Your task to perform on an android device: open app "DuckDuckGo Privacy Browser" (install if not already installed) and go to login screen Image 0: 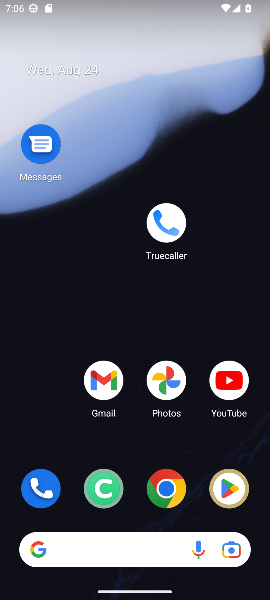
Step 0: click (230, 494)
Your task to perform on an android device: open app "DuckDuckGo Privacy Browser" (install if not already installed) and go to login screen Image 1: 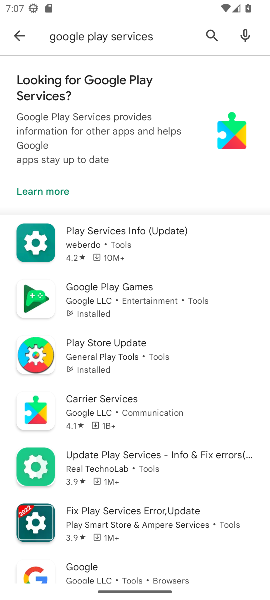
Step 1: click (205, 42)
Your task to perform on an android device: open app "DuckDuckGo Privacy Browser" (install if not already installed) and go to login screen Image 2: 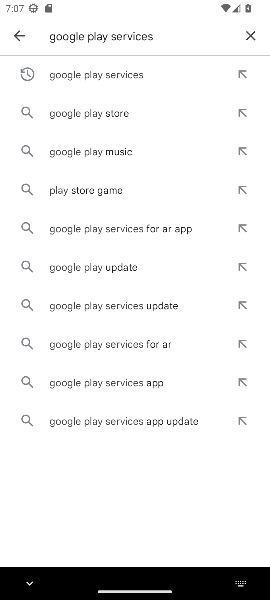
Step 2: click (248, 36)
Your task to perform on an android device: open app "DuckDuckGo Privacy Browser" (install if not already installed) and go to login screen Image 3: 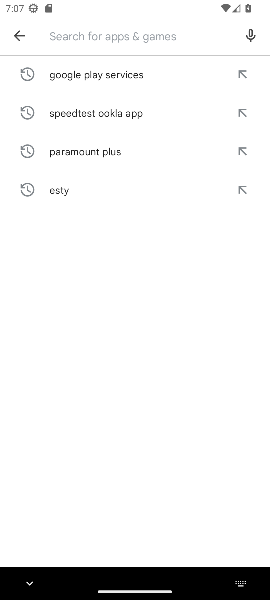
Step 3: type "duck duck go"
Your task to perform on an android device: open app "DuckDuckGo Privacy Browser" (install if not already installed) and go to login screen Image 4: 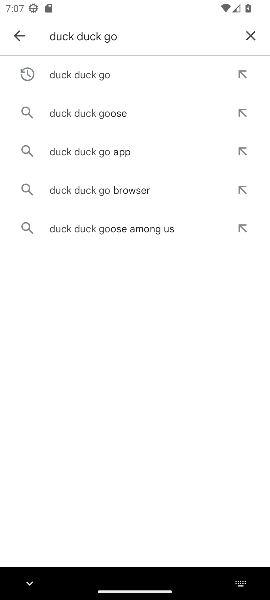
Step 4: click (115, 83)
Your task to perform on an android device: open app "DuckDuckGo Privacy Browser" (install if not already installed) and go to login screen Image 5: 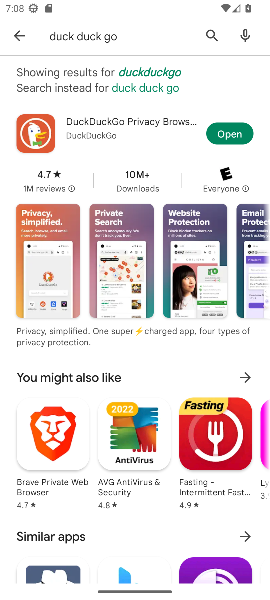
Step 5: click (229, 138)
Your task to perform on an android device: open app "DuckDuckGo Privacy Browser" (install if not already installed) and go to login screen Image 6: 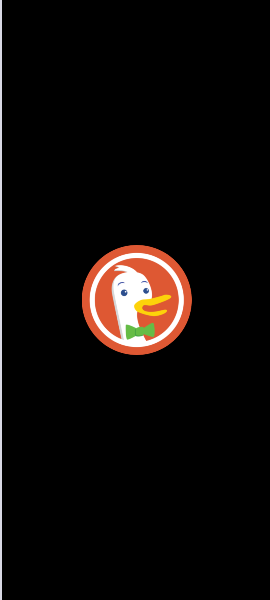
Step 6: task complete